Your task to perform on an android device: manage bookmarks in the chrome app Image 0: 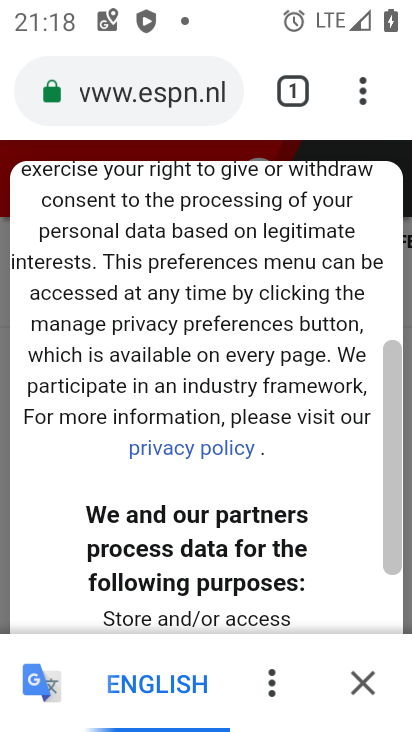
Step 0: press home button
Your task to perform on an android device: manage bookmarks in the chrome app Image 1: 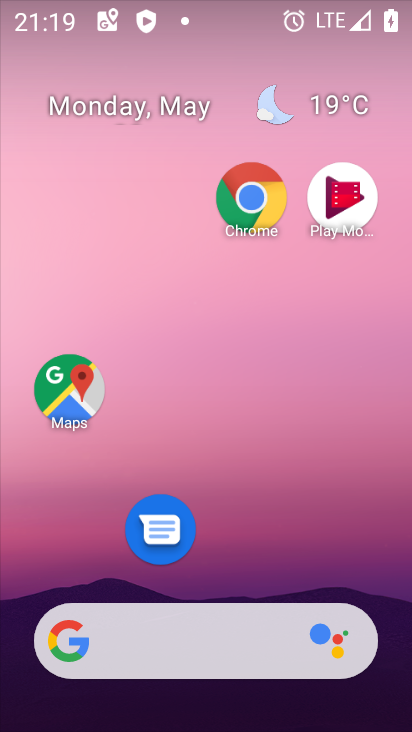
Step 1: click (248, 195)
Your task to perform on an android device: manage bookmarks in the chrome app Image 2: 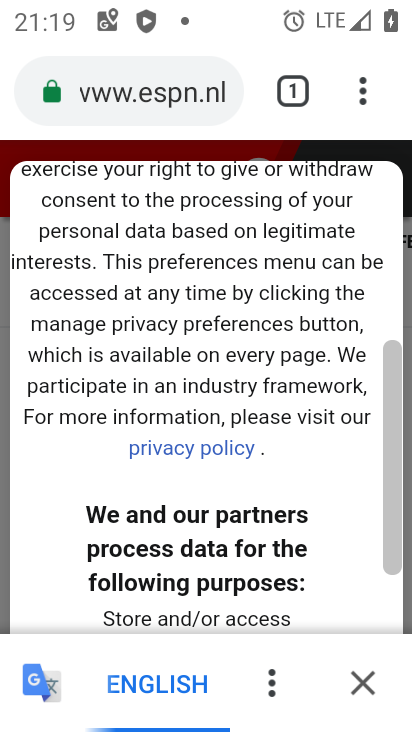
Step 2: click (362, 90)
Your task to perform on an android device: manage bookmarks in the chrome app Image 3: 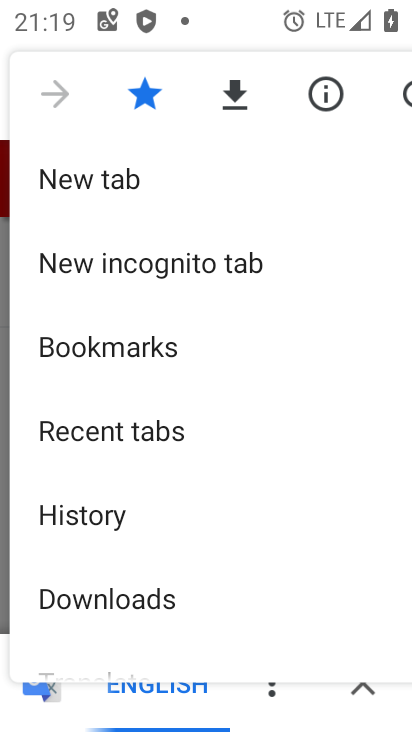
Step 3: drag from (163, 588) to (168, 473)
Your task to perform on an android device: manage bookmarks in the chrome app Image 4: 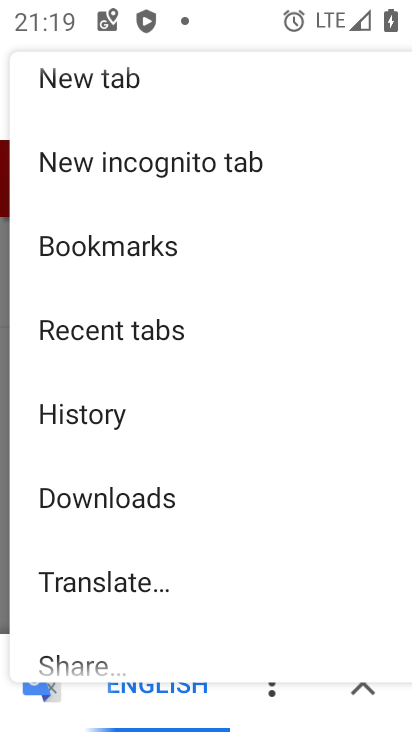
Step 4: click (135, 249)
Your task to perform on an android device: manage bookmarks in the chrome app Image 5: 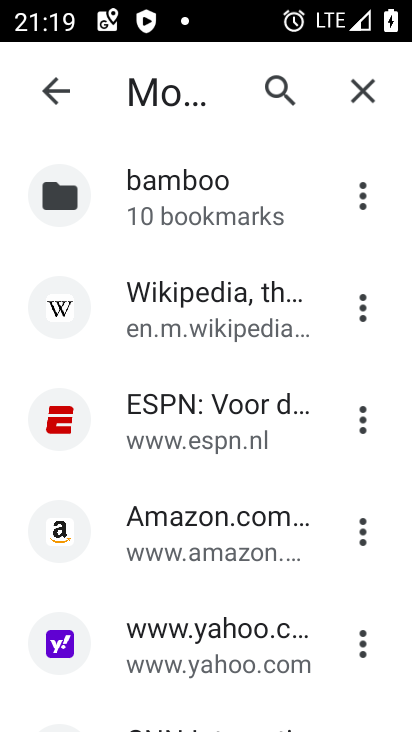
Step 5: click (364, 301)
Your task to perform on an android device: manage bookmarks in the chrome app Image 6: 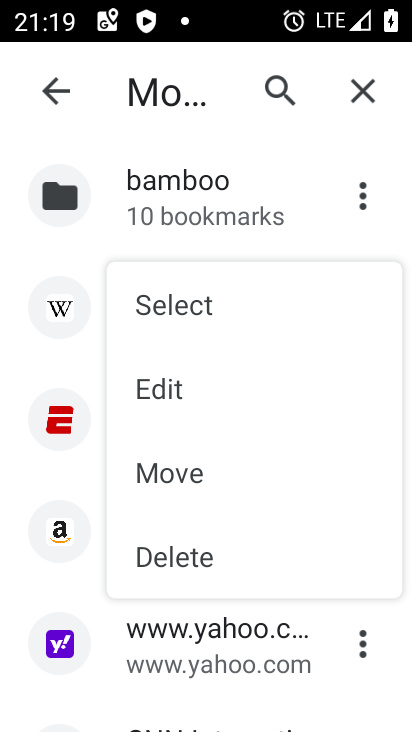
Step 6: click (214, 559)
Your task to perform on an android device: manage bookmarks in the chrome app Image 7: 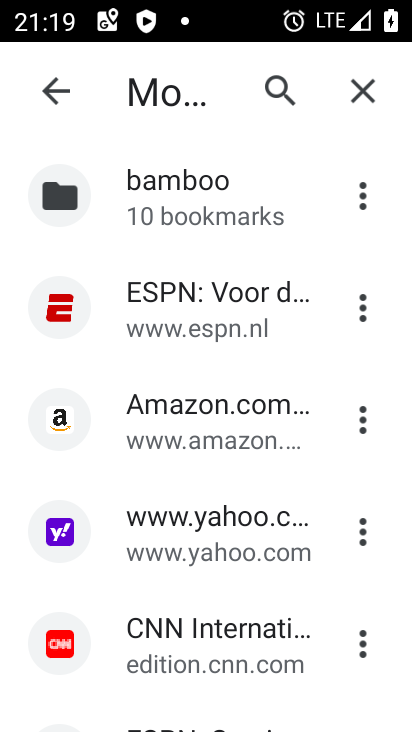
Step 7: task complete